Your task to perform on an android device: turn on wifi Image 0: 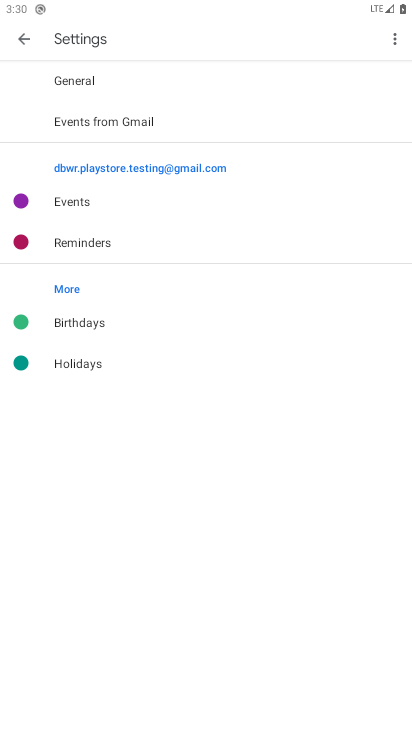
Step 0: press home button
Your task to perform on an android device: turn on wifi Image 1: 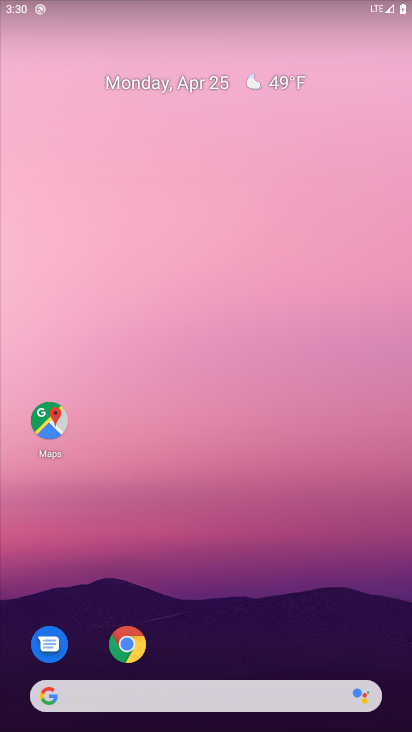
Step 1: drag from (222, 646) to (200, 64)
Your task to perform on an android device: turn on wifi Image 2: 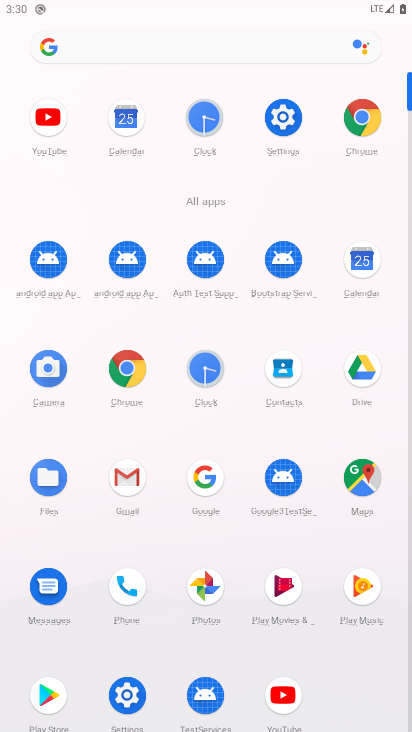
Step 2: click (277, 127)
Your task to perform on an android device: turn on wifi Image 3: 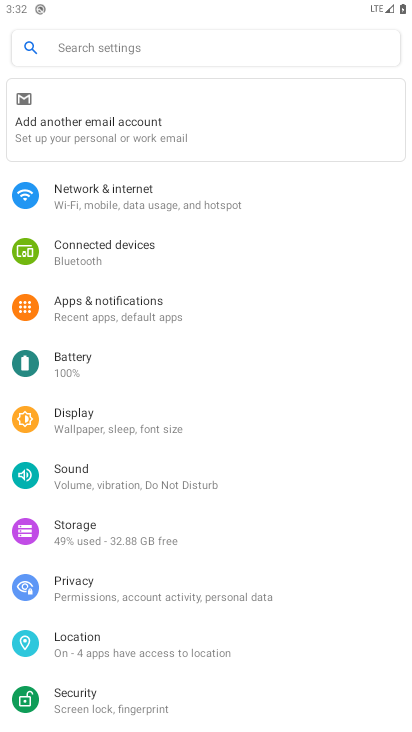
Step 3: click (183, 202)
Your task to perform on an android device: turn on wifi Image 4: 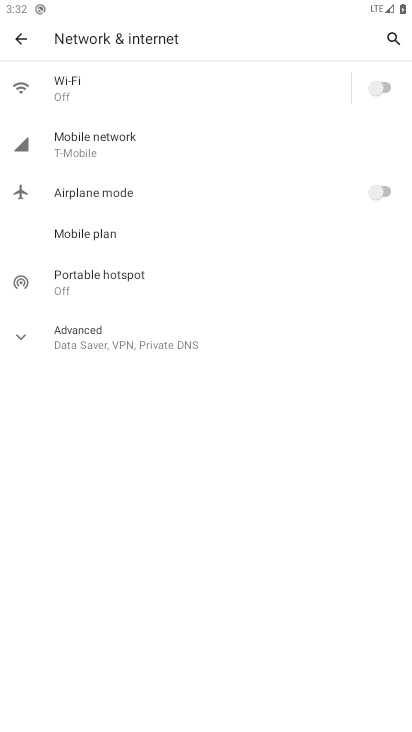
Step 4: click (369, 85)
Your task to perform on an android device: turn on wifi Image 5: 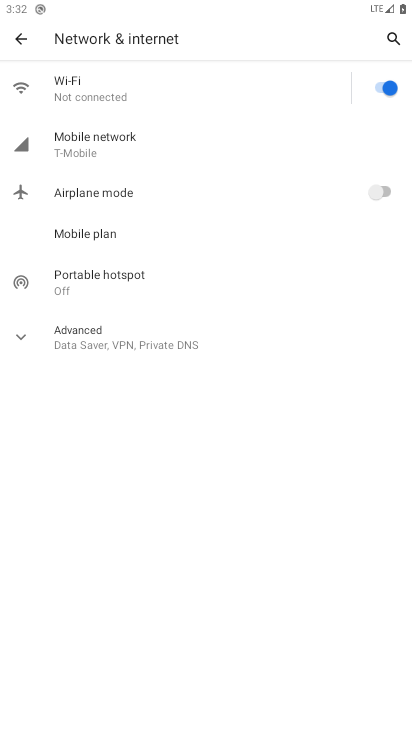
Step 5: task complete